Your task to perform on an android device: Find coffee shops on Maps Image 0: 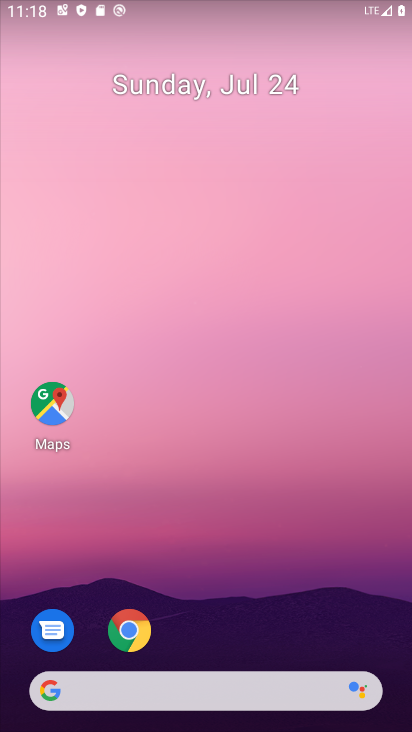
Step 0: click (61, 431)
Your task to perform on an android device: Find coffee shops on Maps Image 1: 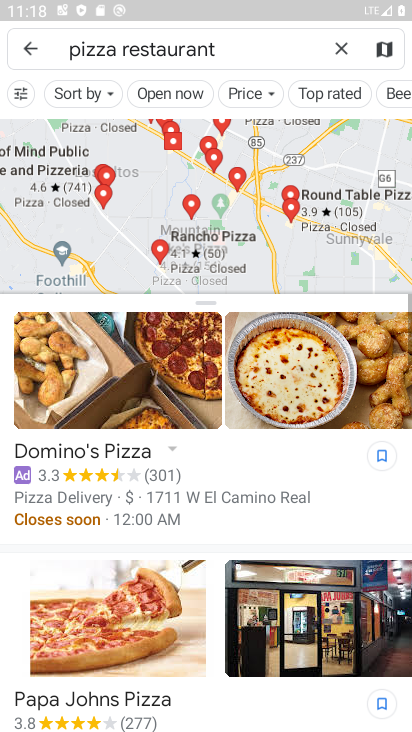
Step 1: click (342, 63)
Your task to perform on an android device: Find coffee shops on Maps Image 2: 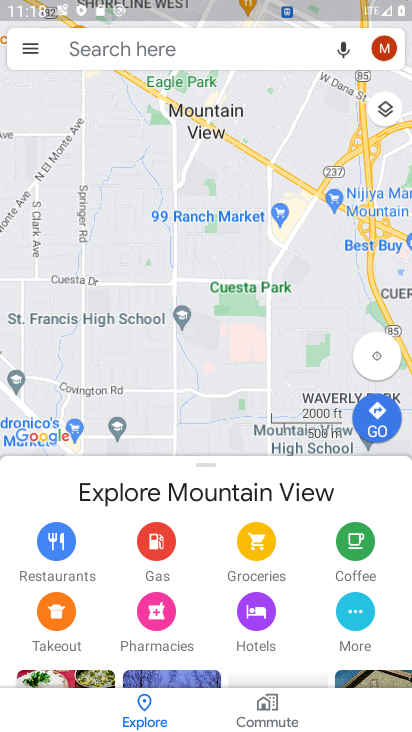
Step 2: click (177, 63)
Your task to perform on an android device: Find coffee shops on Maps Image 3: 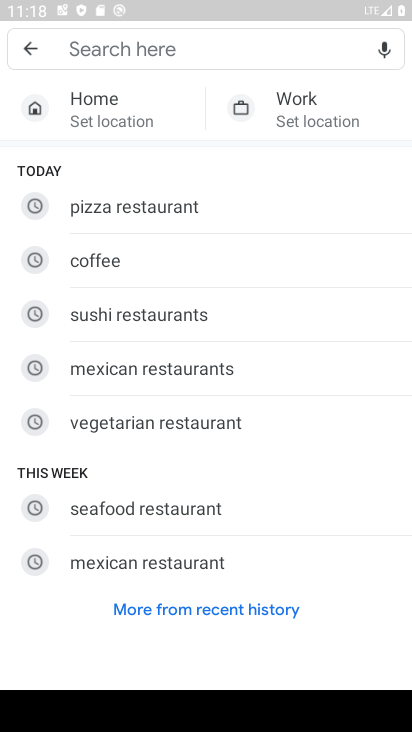
Step 3: type "coffee shops"
Your task to perform on an android device: Find coffee shops on Maps Image 4: 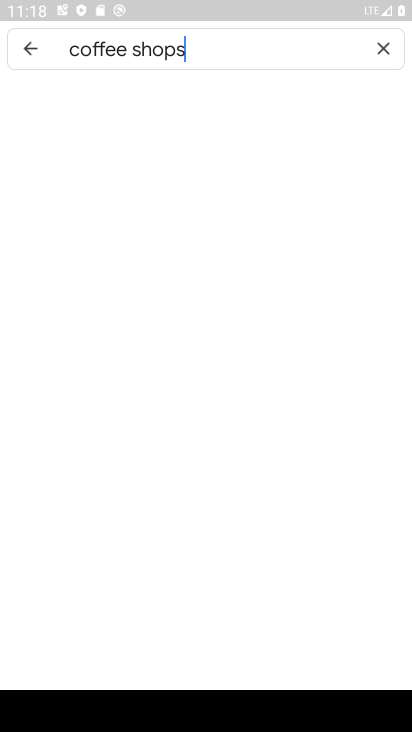
Step 4: type ""
Your task to perform on an android device: Find coffee shops on Maps Image 5: 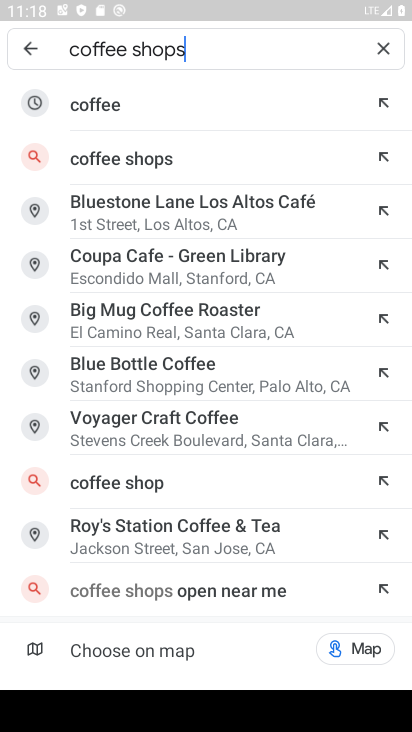
Step 5: click (149, 151)
Your task to perform on an android device: Find coffee shops on Maps Image 6: 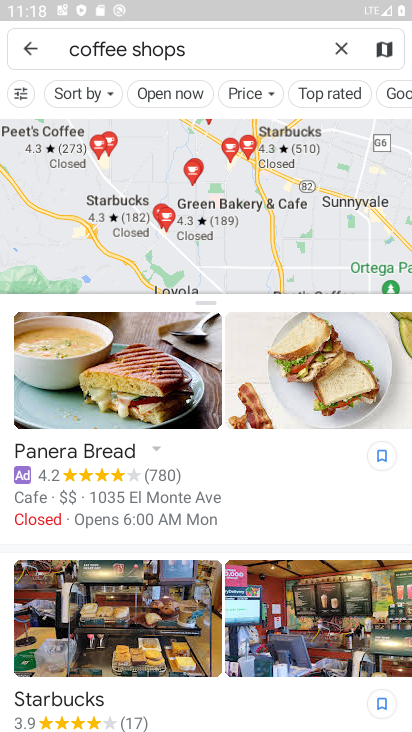
Step 6: task complete